Your task to perform on an android device: toggle javascript in the chrome app Image 0: 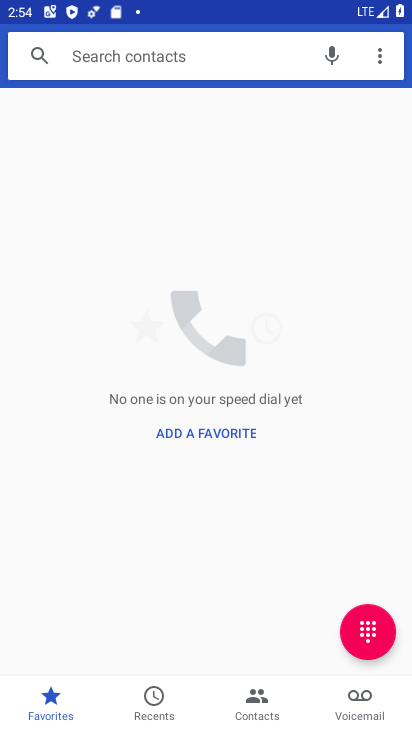
Step 0: press home button
Your task to perform on an android device: toggle javascript in the chrome app Image 1: 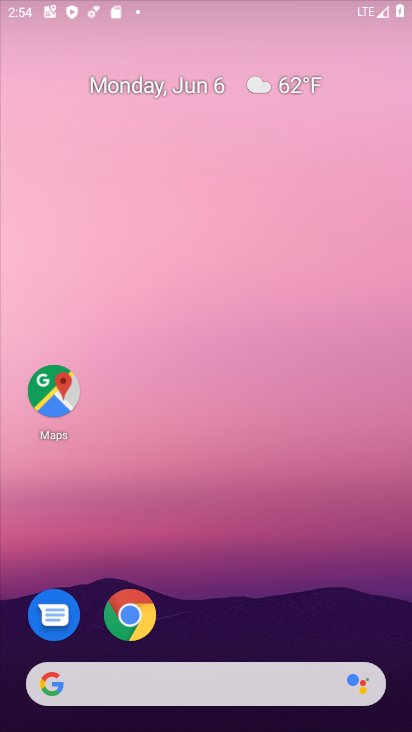
Step 1: drag from (191, 699) to (318, 15)
Your task to perform on an android device: toggle javascript in the chrome app Image 2: 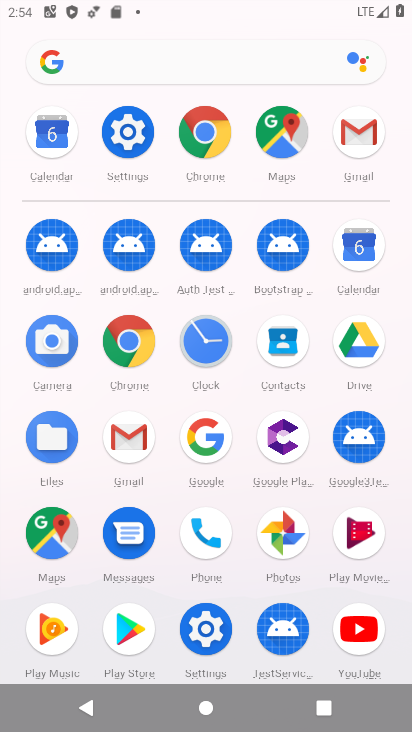
Step 2: click (130, 345)
Your task to perform on an android device: toggle javascript in the chrome app Image 3: 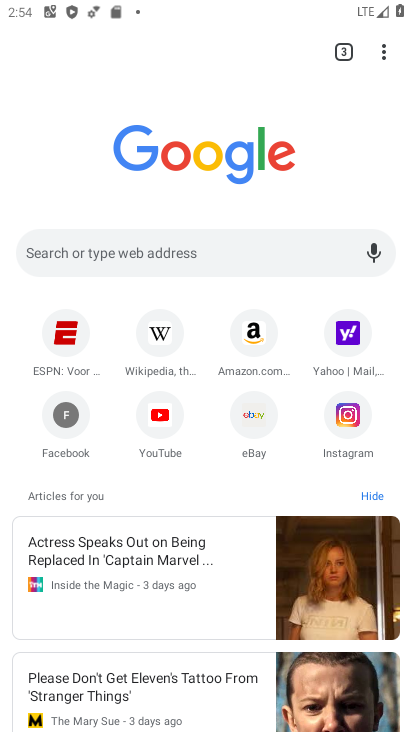
Step 3: drag from (378, 48) to (204, 449)
Your task to perform on an android device: toggle javascript in the chrome app Image 4: 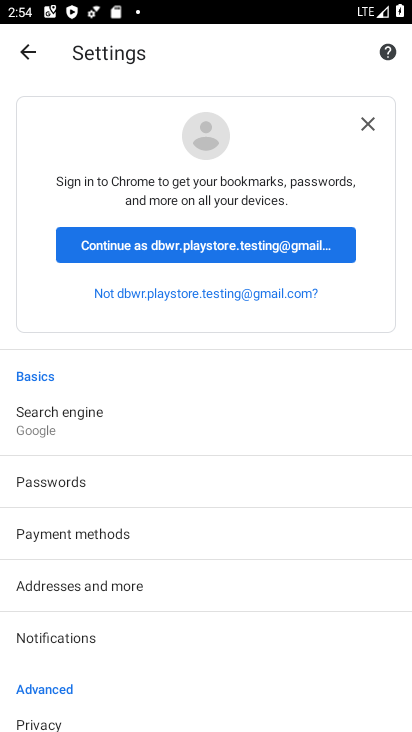
Step 4: drag from (122, 634) to (154, 275)
Your task to perform on an android device: toggle javascript in the chrome app Image 5: 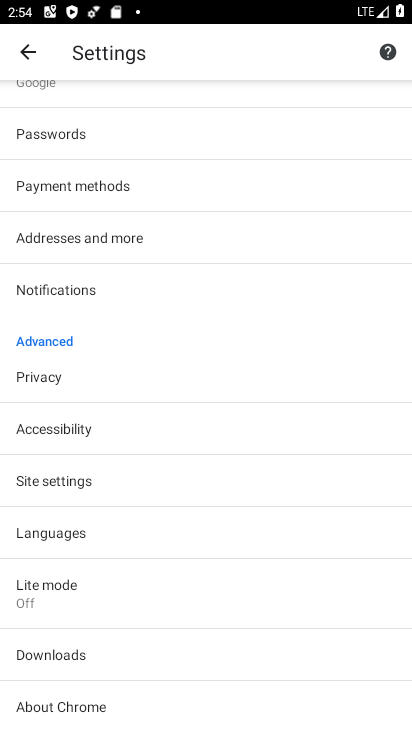
Step 5: click (85, 489)
Your task to perform on an android device: toggle javascript in the chrome app Image 6: 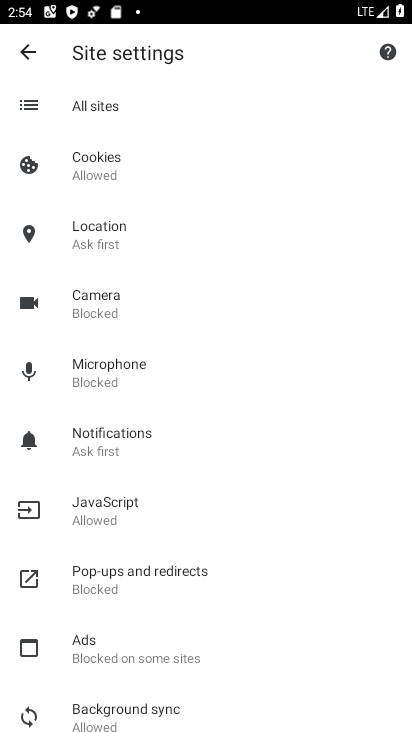
Step 6: click (125, 502)
Your task to perform on an android device: toggle javascript in the chrome app Image 7: 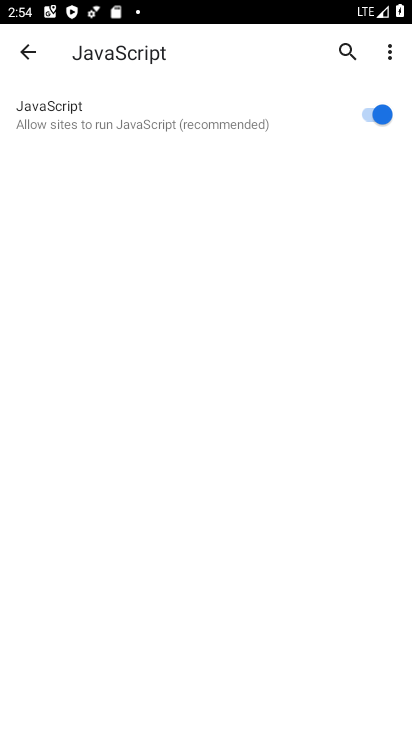
Step 7: click (375, 116)
Your task to perform on an android device: toggle javascript in the chrome app Image 8: 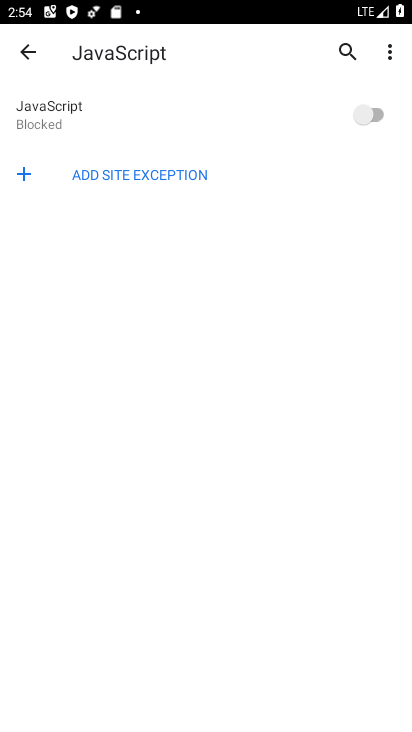
Step 8: task complete